Your task to perform on an android device: find which apps use the phone's location Image 0: 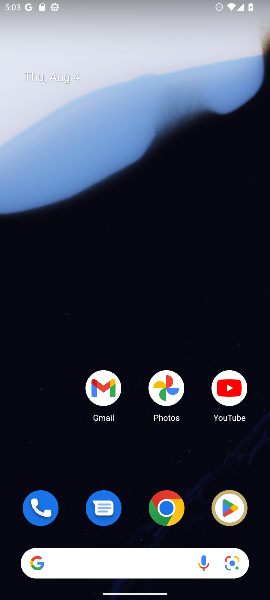
Step 0: drag from (148, 435) to (230, 56)
Your task to perform on an android device: find which apps use the phone's location Image 1: 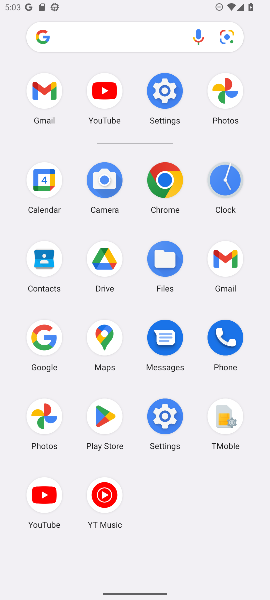
Step 1: click (159, 410)
Your task to perform on an android device: find which apps use the phone's location Image 2: 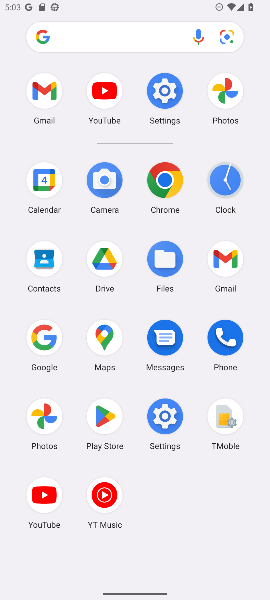
Step 2: click (158, 409)
Your task to perform on an android device: find which apps use the phone's location Image 3: 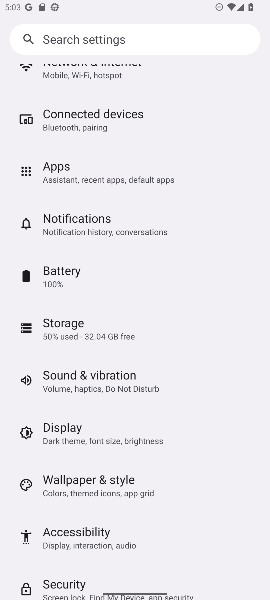
Step 3: drag from (87, 555) to (148, 120)
Your task to perform on an android device: find which apps use the phone's location Image 4: 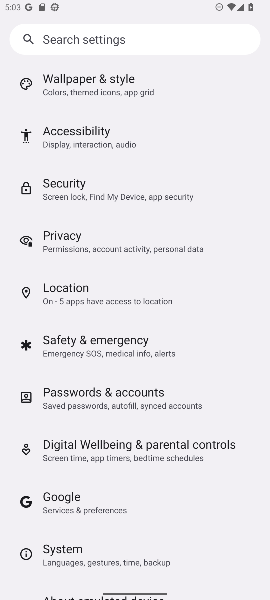
Step 4: click (71, 297)
Your task to perform on an android device: find which apps use the phone's location Image 5: 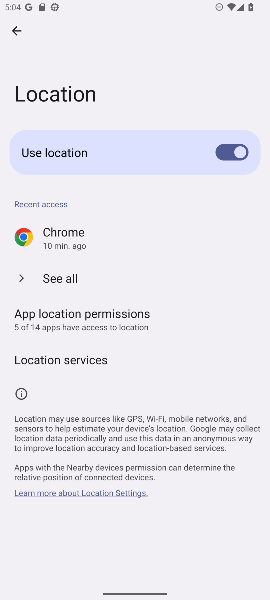
Step 5: drag from (102, 450) to (181, 129)
Your task to perform on an android device: find which apps use the phone's location Image 6: 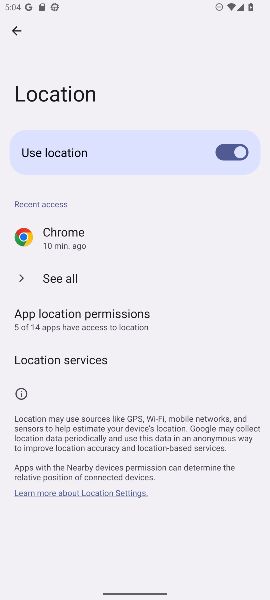
Step 6: click (40, 277)
Your task to perform on an android device: find which apps use the phone's location Image 7: 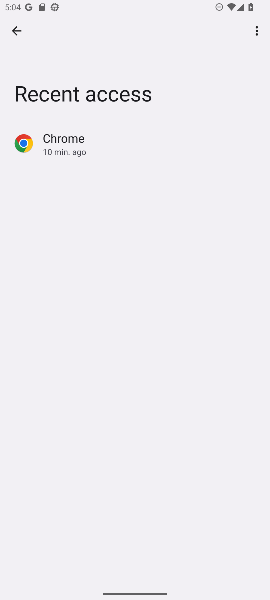
Step 7: task complete